Your task to perform on an android device: turn pop-ups on in chrome Image 0: 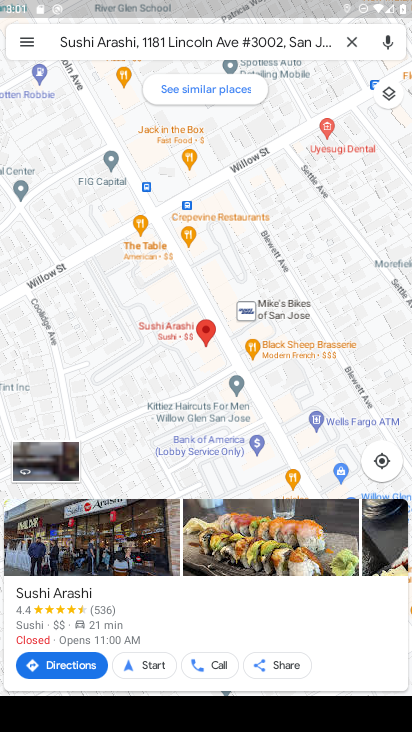
Step 0: press home button
Your task to perform on an android device: turn pop-ups on in chrome Image 1: 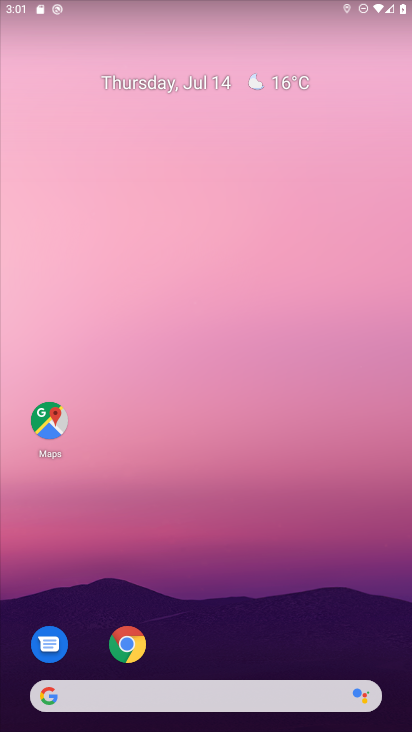
Step 1: click (123, 648)
Your task to perform on an android device: turn pop-ups on in chrome Image 2: 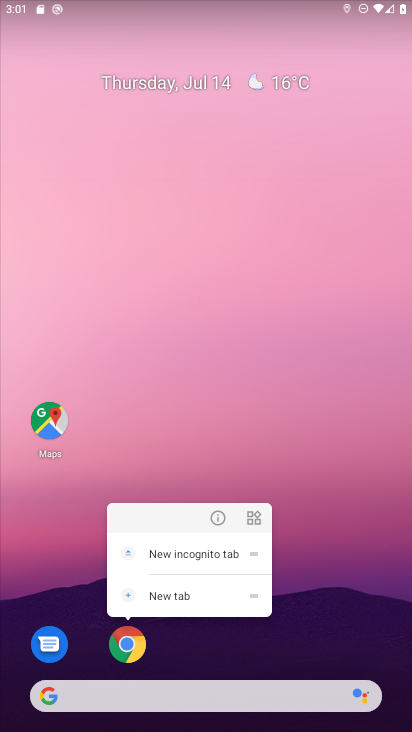
Step 2: click (140, 645)
Your task to perform on an android device: turn pop-ups on in chrome Image 3: 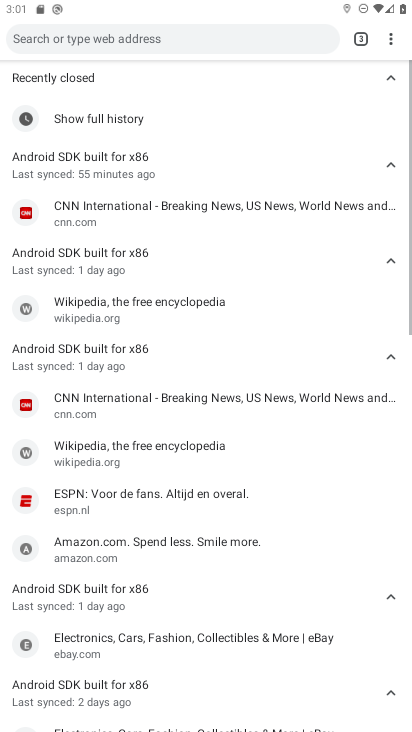
Step 3: click (391, 44)
Your task to perform on an android device: turn pop-ups on in chrome Image 4: 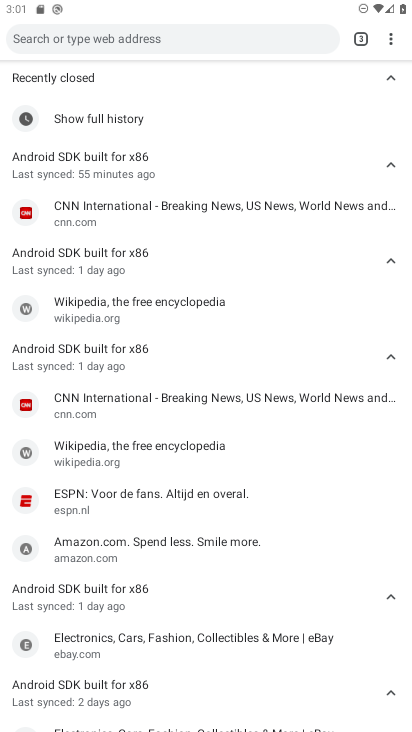
Step 4: click (391, 35)
Your task to perform on an android device: turn pop-ups on in chrome Image 5: 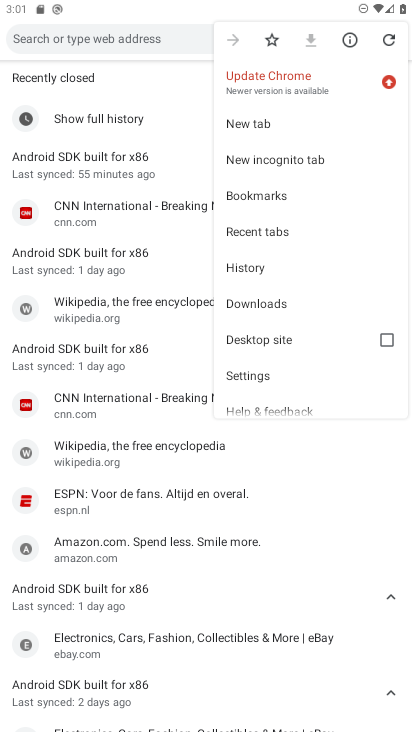
Step 5: click (259, 382)
Your task to perform on an android device: turn pop-ups on in chrome Image 6: 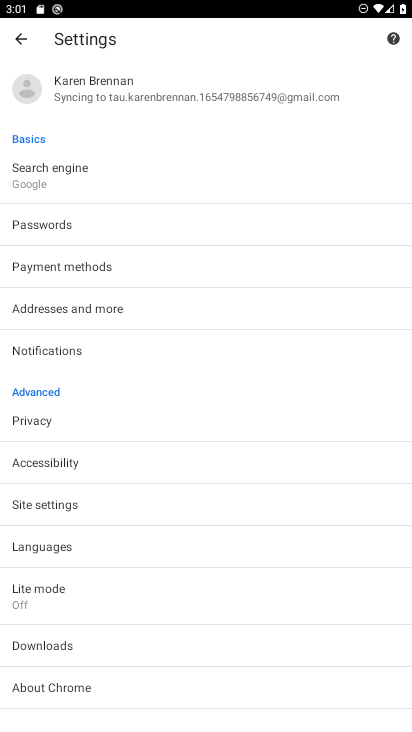
Step 6: click (121, 511)
Your task to perform on an android device: turn pop-ups on in chrome Image 7: 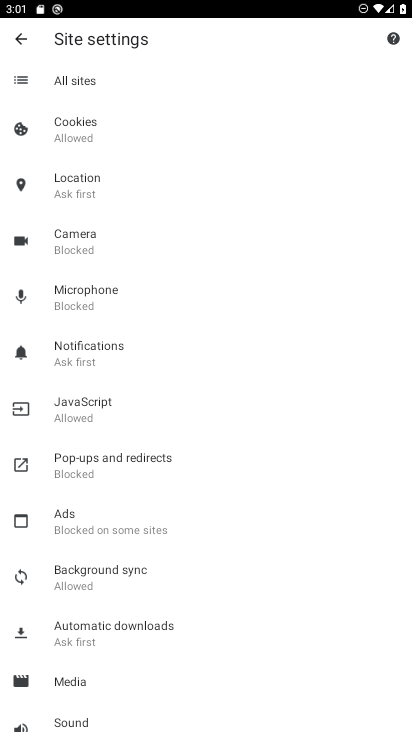
Step 7: click (175, 469)
Your task to perform on an android device: turn pop-ups on in chrome Image 8: 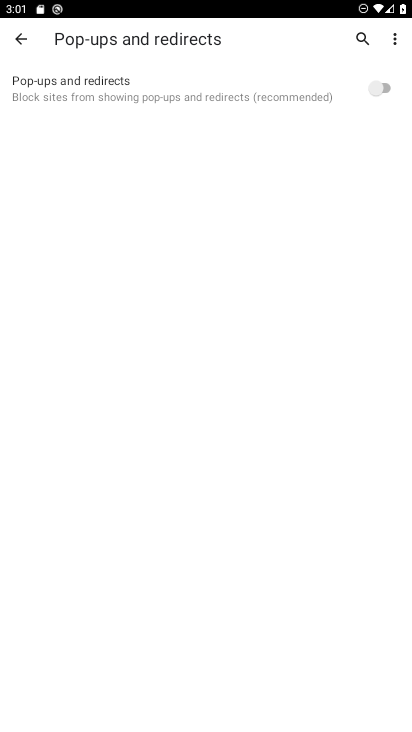
Step 8: click (387, 91)
Your task to perform on an android device: turn pop-ups on in chrome Image 9: 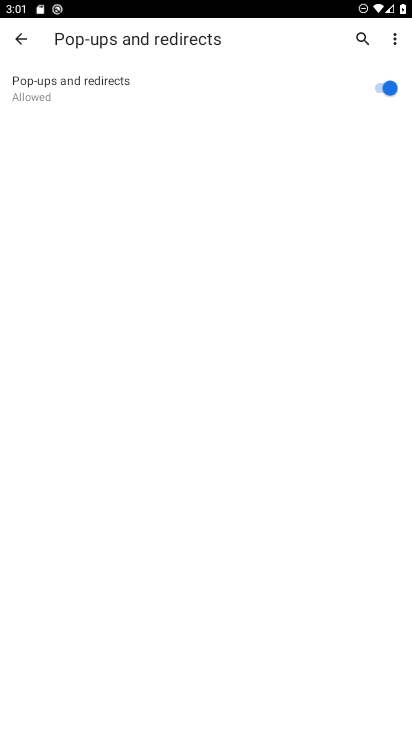
Step 9: task complete